Your task to perform on an android device: Open Android settings Image 0: 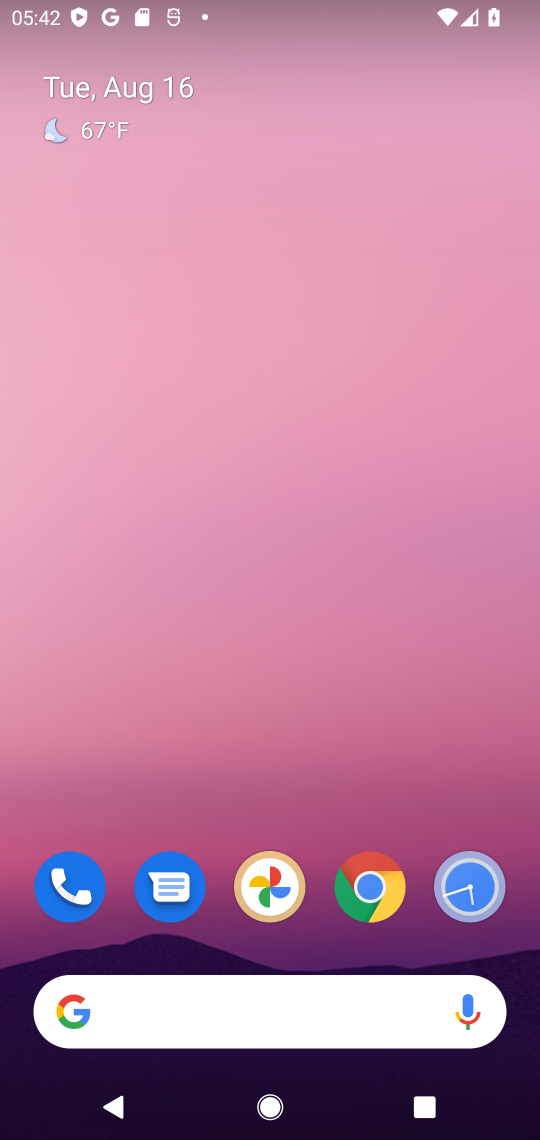
Step 0: drag from (340, 802) to (359, 1)
Your task to perform on an android device: Open Android settings Image 1: 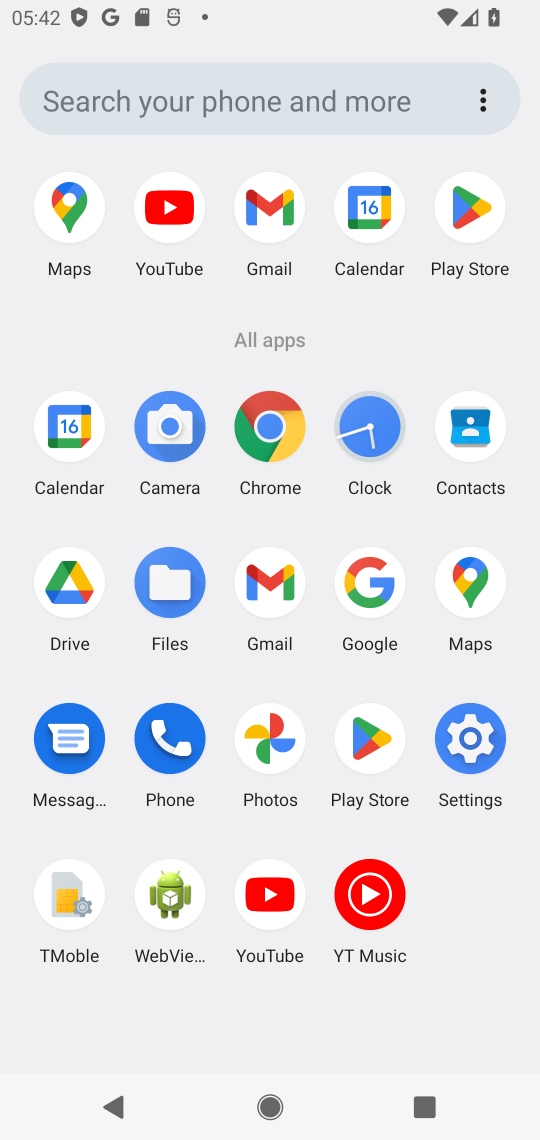
Step 1: click (485, 716)
Your task to perform on an android device: Open Android settings Image 2: 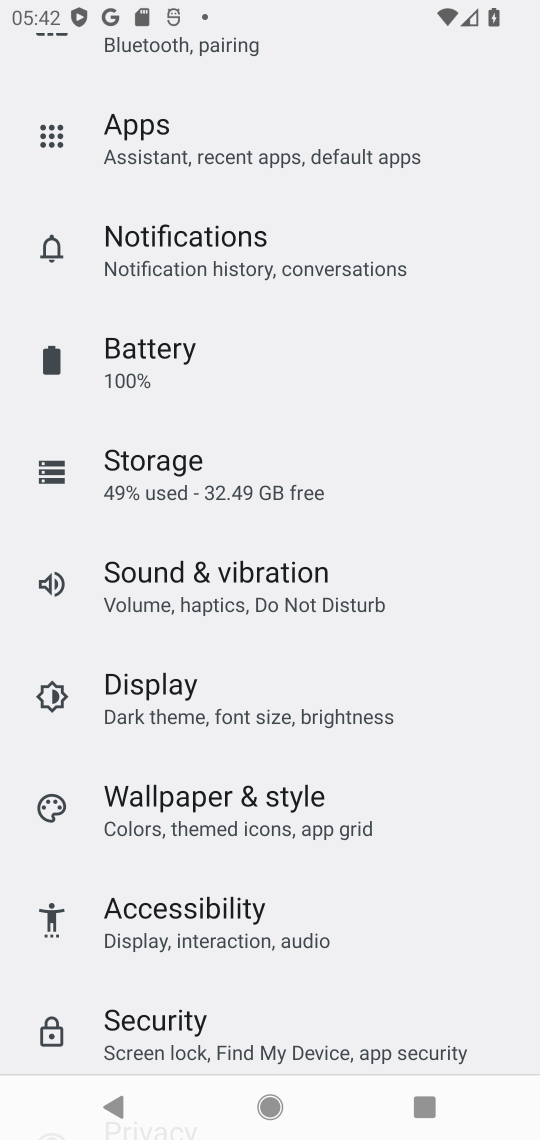
Step 2: task complete